Your task to perform on an android device: turn on translation in the chrome app Image 0: 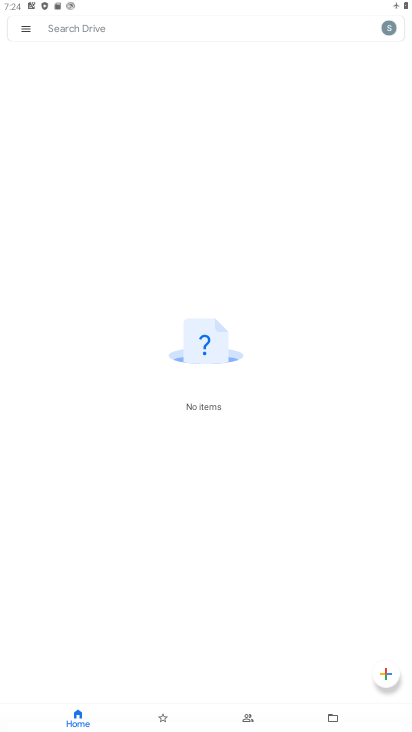
Step 0: press home button
Your task to perform on an android device: turn on translation in the chrome app Image 1: 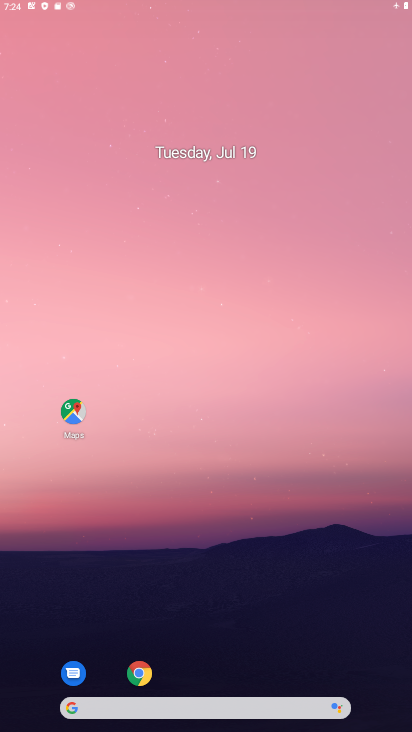
Step 1: drag from (359, 654) to (273, 102)
Your task to perform on an android device: turn on translation in the chrome app Image 2: 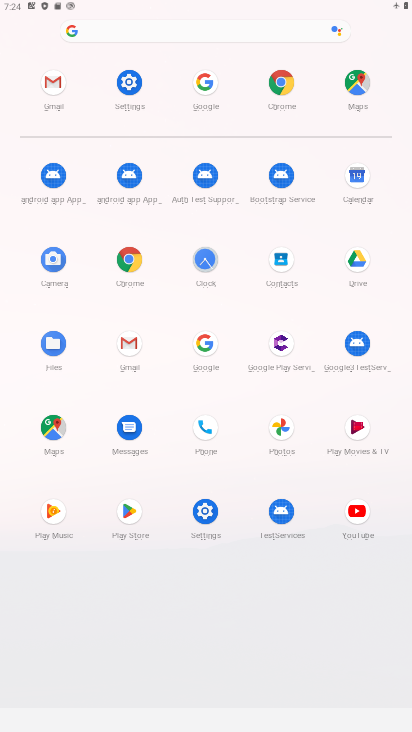
Step 2: click (128, 261)
Your task to perform on an android device: turn on translation in the chrome app Image 3: 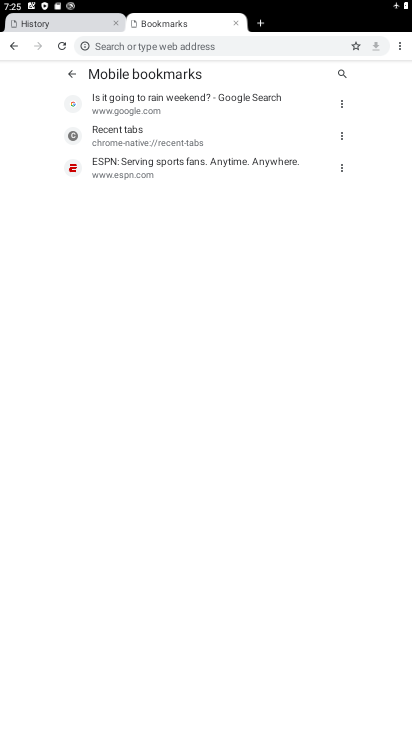
Step 3: click (398, 44)
Your task to perform on an android device: turn on translation in the chrome app Image 4: 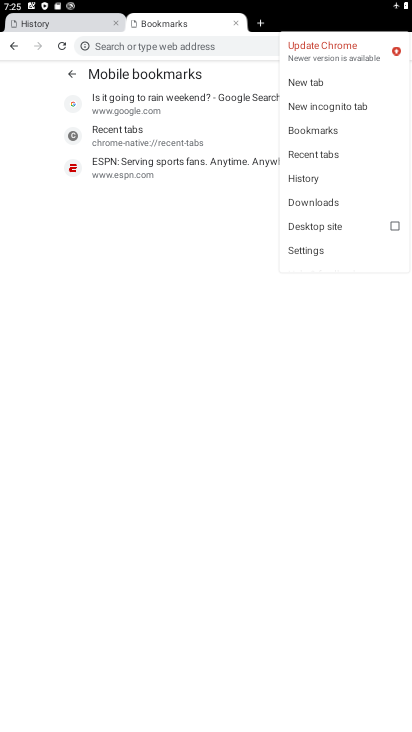
Step 4: click (309, 251)
Your task to perform on an android device: turn on translation in the chrome app Image 5: 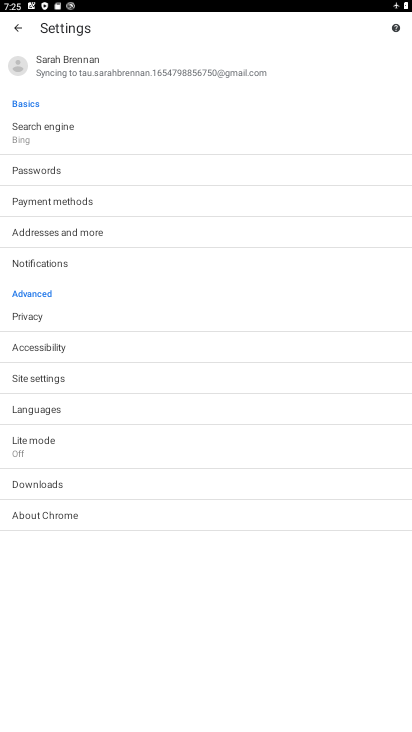
Step 5: click (55, 400)
Your task to perform on an android device: turn on translation in the chrome app Image 6: 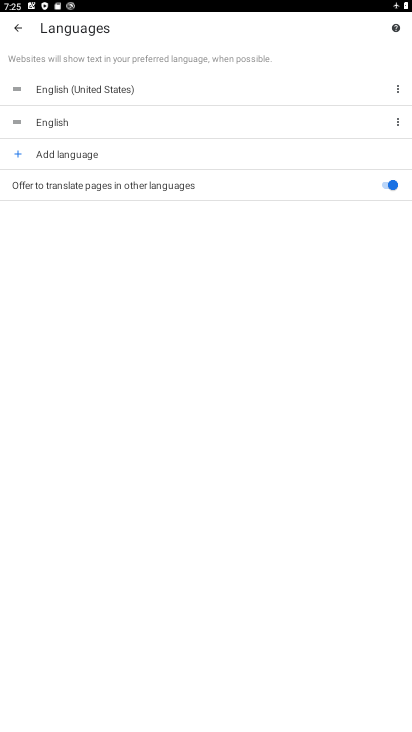
Step 6: task complete